Your task to perform on an android device: Open wifi settings Image 0: 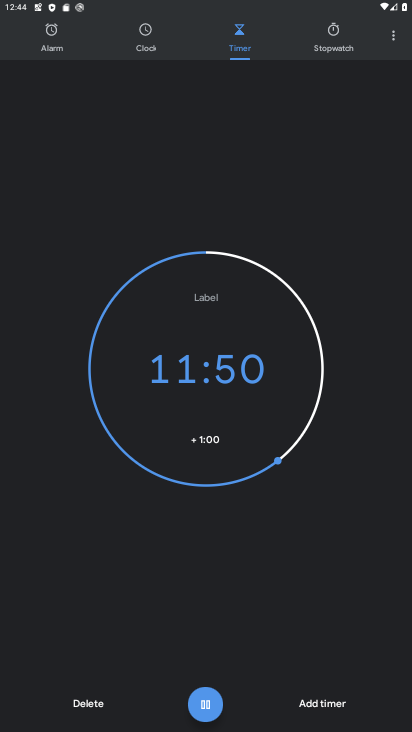
Step 0: press home button
Your task to perform on an android device: Open wifi settings Image 1: 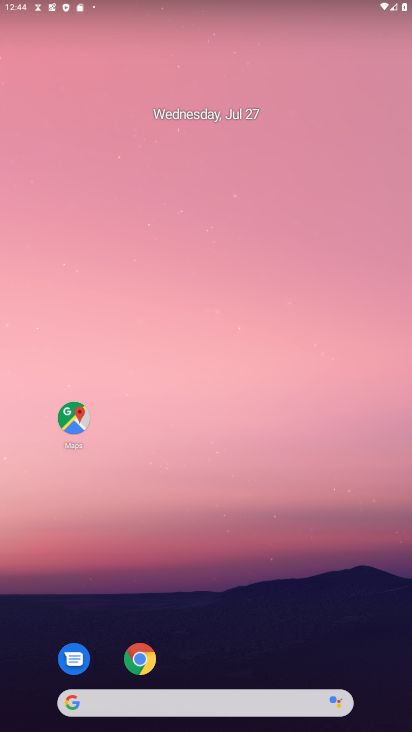
Step 1: drag from (202, 673) to (187, 64)
Your task to perform on an android device: Open wifi settings Image 2: 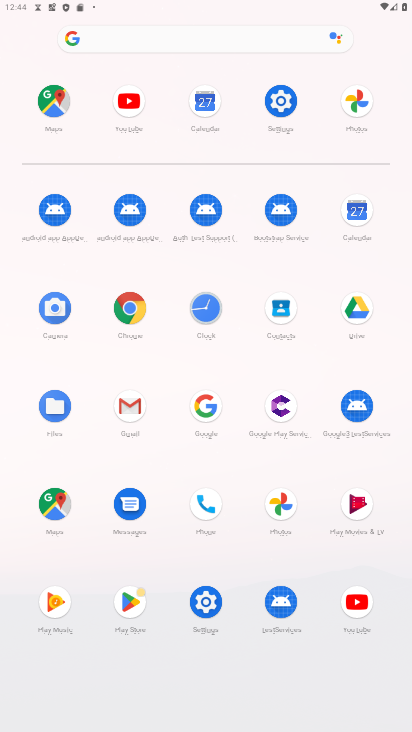
Step 2: click (281, 97)
Your task to perform on an android device: Open wifi settings Image 3: 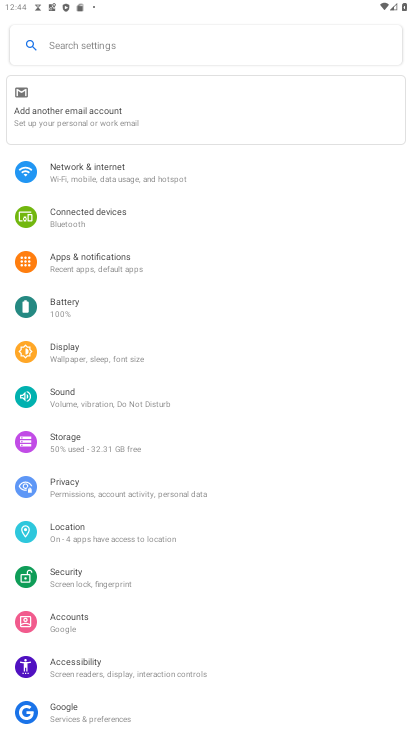
Step 3: click (112, 165)
Your task to perform on an android device: Open wifi settings Image 4: 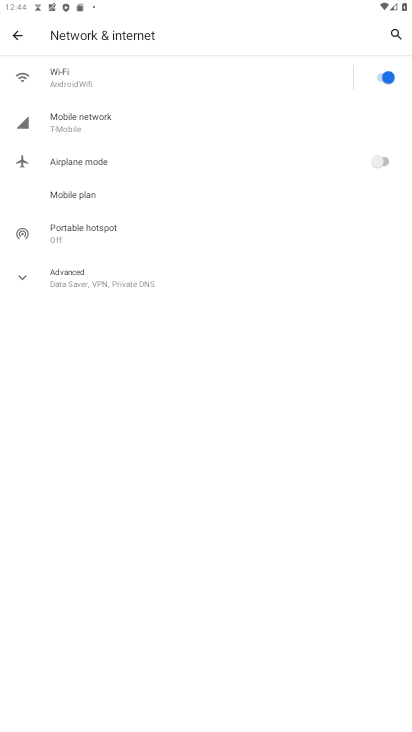
Step 4: click (112, 80)
Your task to perform on an android device: Open wifi settings Image 5: 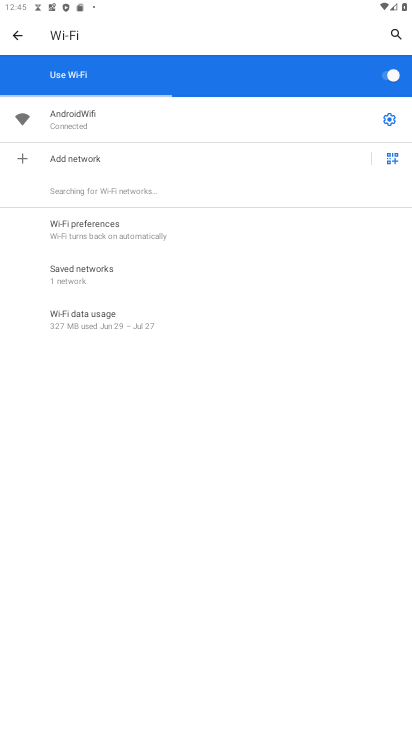
Step 5: task complete